Your task to perform on an android device: Open Google Chrome and click the shortcut for Amazon.com Image 0: 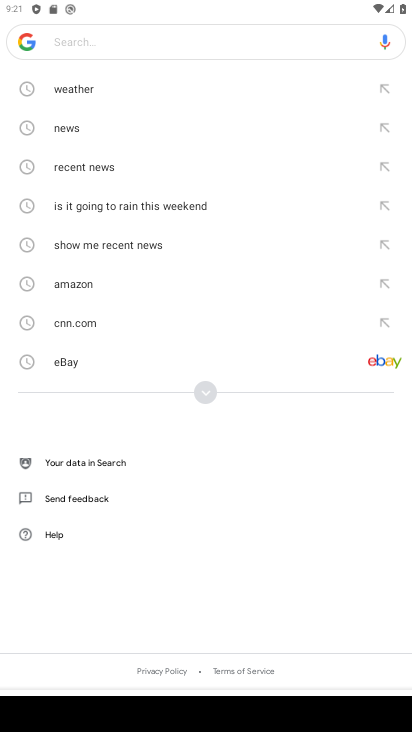
Step 0: press home button
Your task to perform on an android device: Open Google Chrome and click the shortcut for Amazon.com Image 1: 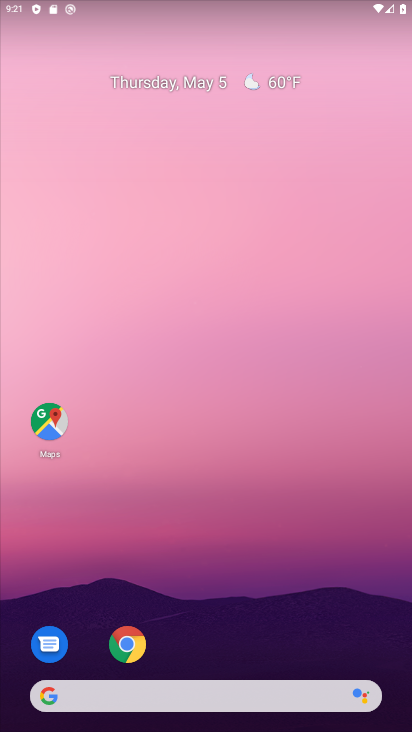
Step 1: drag from (374, 641) to (396, 116)
Your task to perform on an android device: Open Google Chrome and click the shortcut for Amazon.com Image 2: 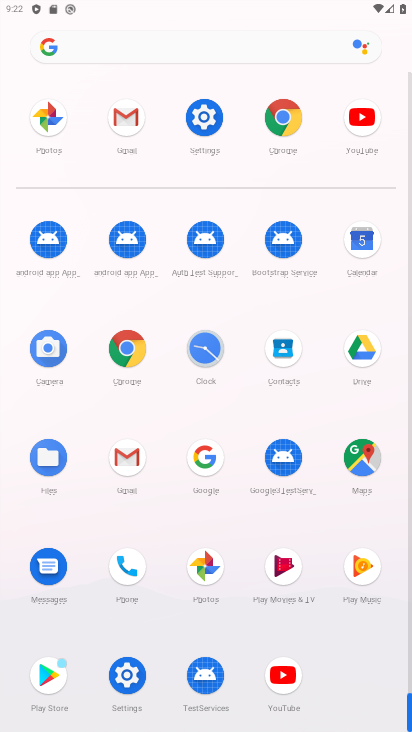
Step 2: click (135, 348)
Your task to perform on an android device: Open Google Chrome and click the shortcut for Amazon.com Image 3: 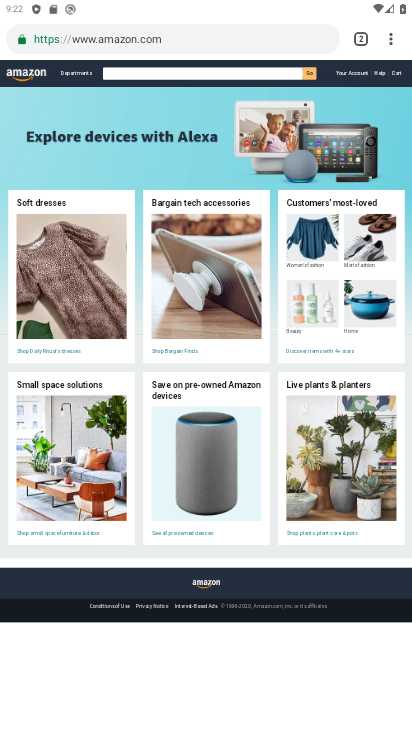
Step 3: task complete